Your task to perform on an android device: turn smart compose on in the gmail app Image 0: 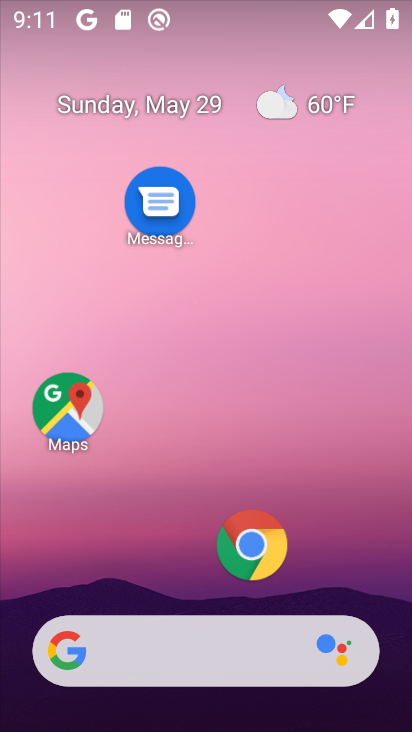
Step 0: drag from (220, 605) to (245, 270)
Your task to perform on an android device: turn smart compose on in the gmail app Image 1: 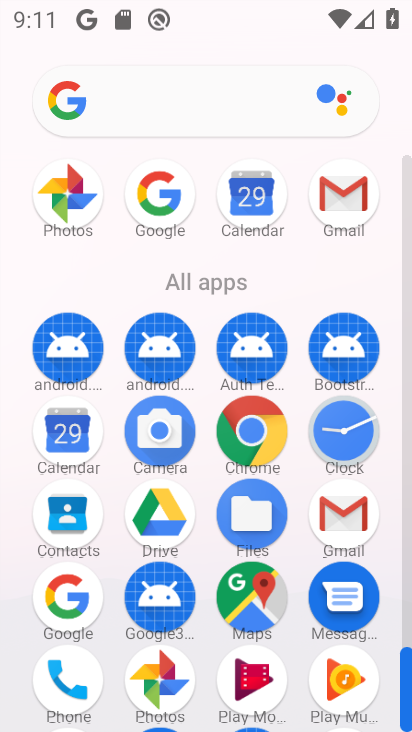
Step 1: click (359, 191)
Your task to perform on an android device: turn smart compose on in the gmail app Image 2: 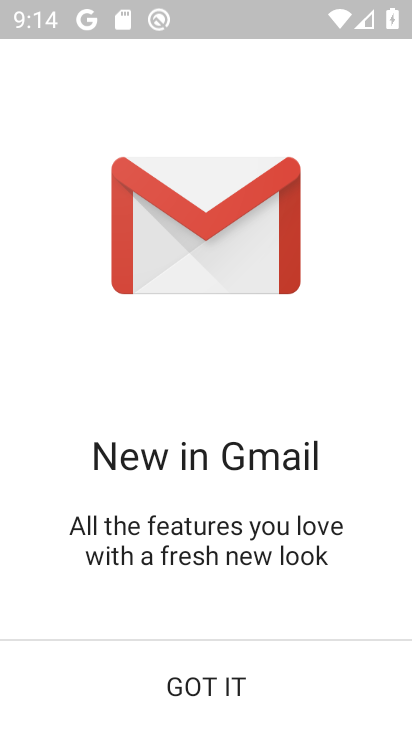
Step 2: click (206, 695)
Your task to perform on an android device: turn smart compose on in the gmail app Image 3: 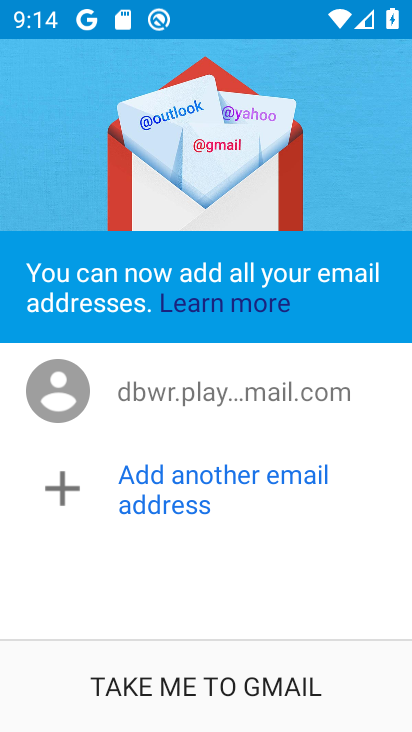
Step 3: click (160, 685)
Your task to perform on an android device: turn smart compose on in the gmail app Image 4: 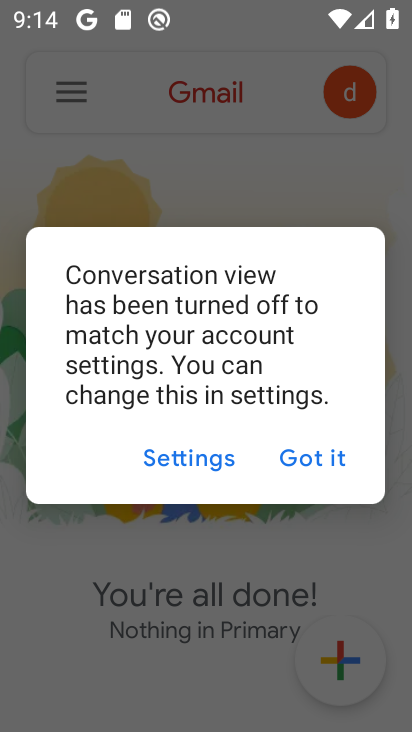
Step 4: click (304, 456)
Your task to perform on an android device: turn smart compose on in the gmail app Image 5: 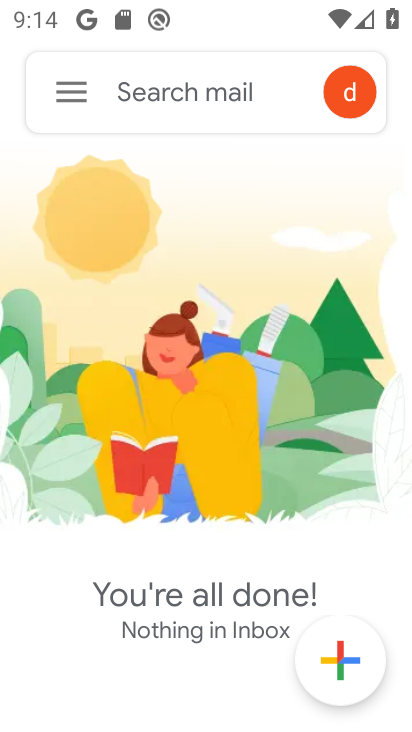
Step 5: click (73, 102)
Your task to perform on an android device: turn smart compose on in the gmail app Image 6: 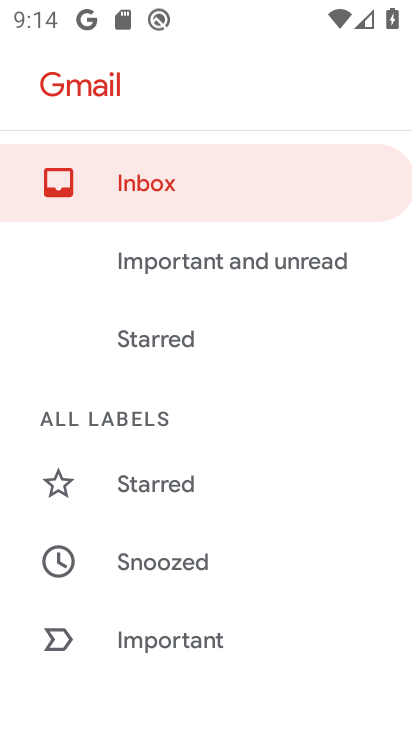
Step 6: drag from (200, 606) to (221, 15)
Your task to perform on an android device: turn smart compose on in the gmail app Image 7: 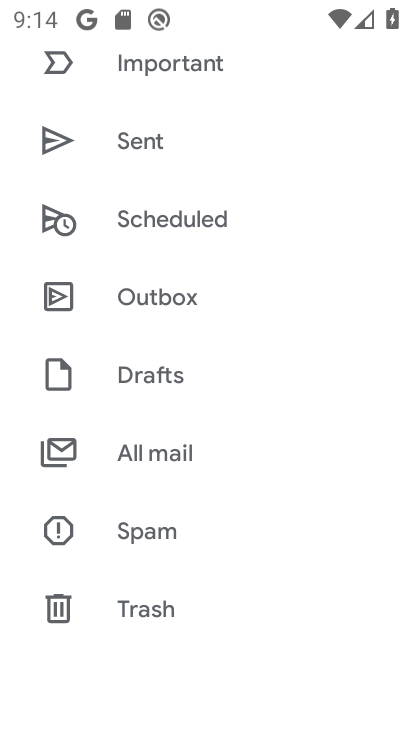
Step 7: drag from (170, 653) to (246, 147)
Your task to perform on an android device: turn smart compose on in the gmail app Image 8: 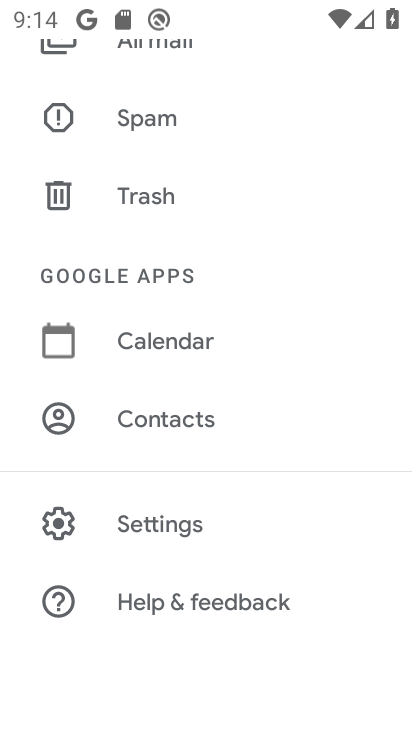
Step 8: click (181, 507)
Your task to perform on an android device: turn smart compose on in the gmail app Image 9: 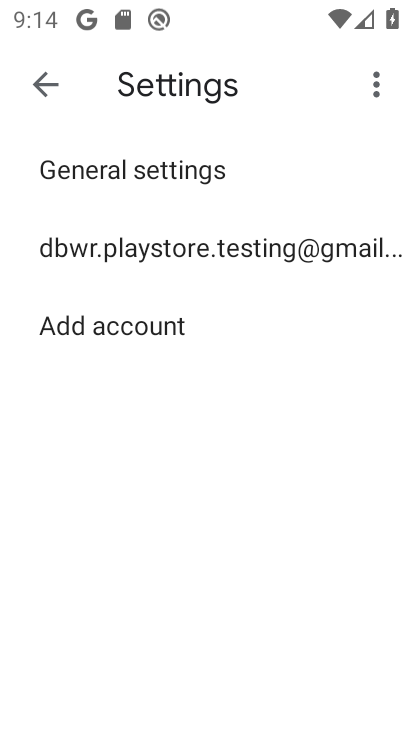
Step 9: click (121, 256)
Your task to perform on an android device: turn smart compose on in the gmail app Image 10: 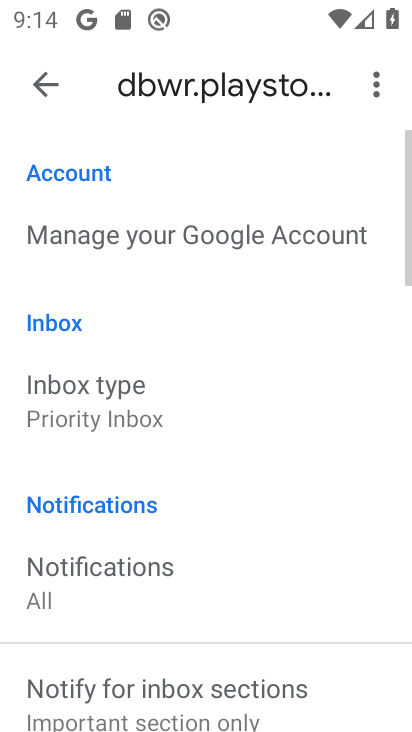
Step 10: task complete